Your task to perform on an android device: turn on the 24-hour format for clock Image 0: 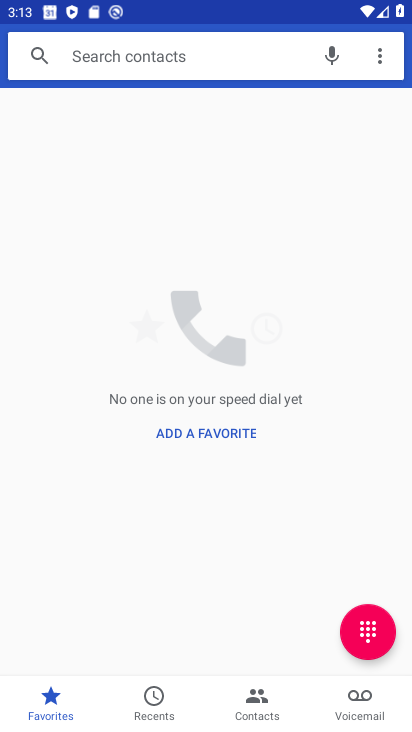
Step 0: press home button
Your task to perform on an android device: turn on the 24-hour format for clock Image 1: 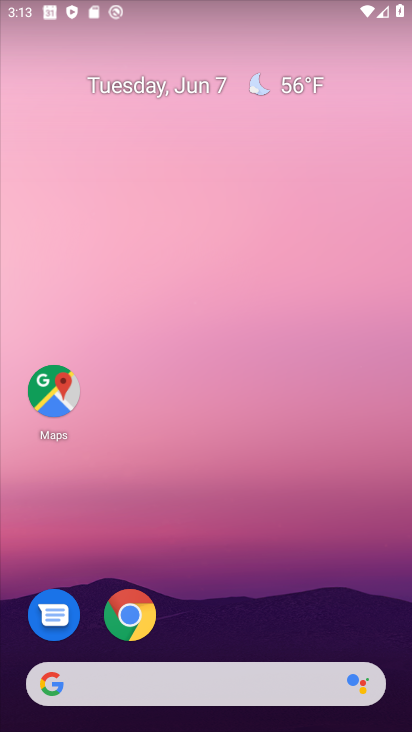
Step 1: drag from (156, 638) to (164, 405)
Your task to perform on an android device: turn on the 24-hour format for clock Image 2: 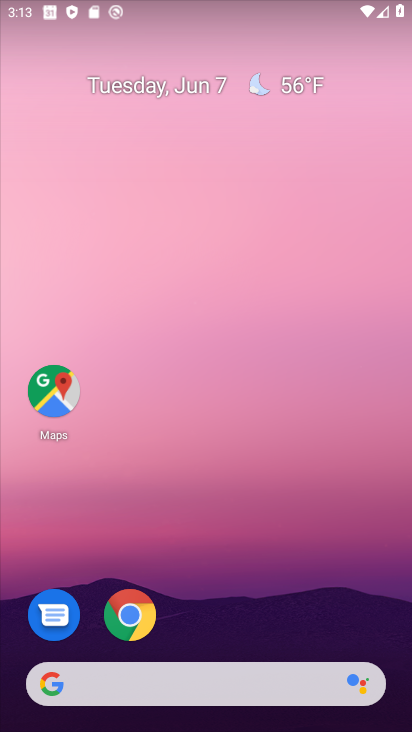
Step 2: drag from (289, 650) to (288, 238)
Your task to perform on an android device: turn on the 24-hour format for clock Image 3: 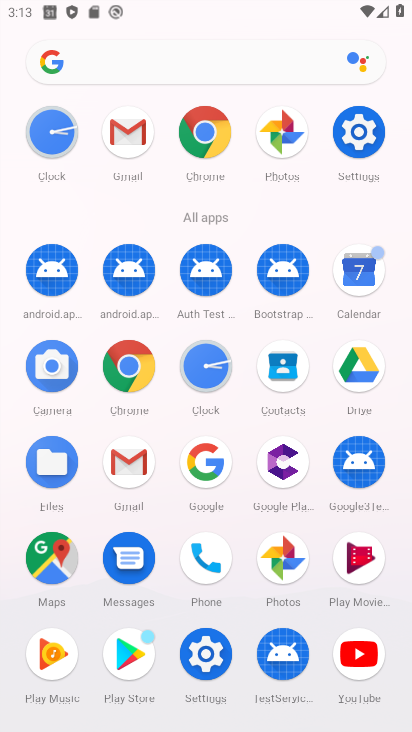
Step 3: click (181, 353)
Your task to perform on an android device: turn on the 24-hour format for clock Image 4: 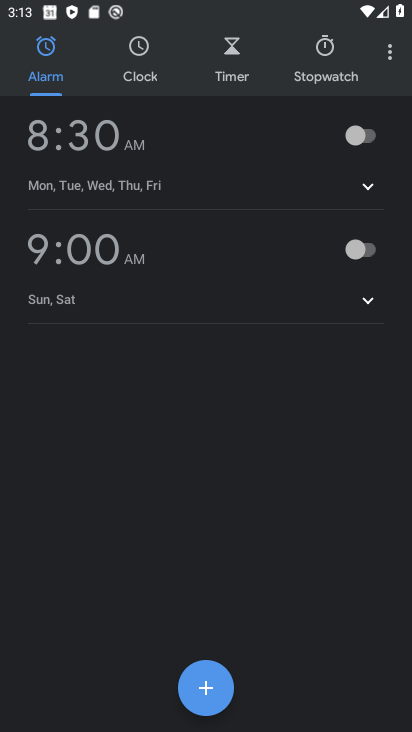
Step 4: click (389, 48)
Your task to perform on an android device: turn on the 24-hour format for clock Image 5: 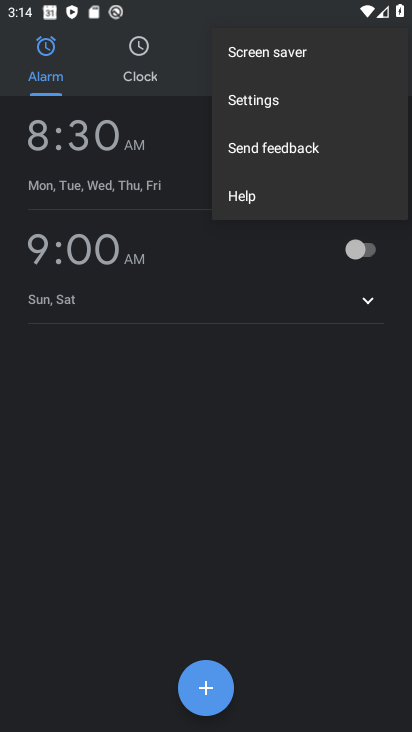
Step 5: click (268, 100)
Your task to perform on an android device: turn on the 24-hour format for clock Image 6: 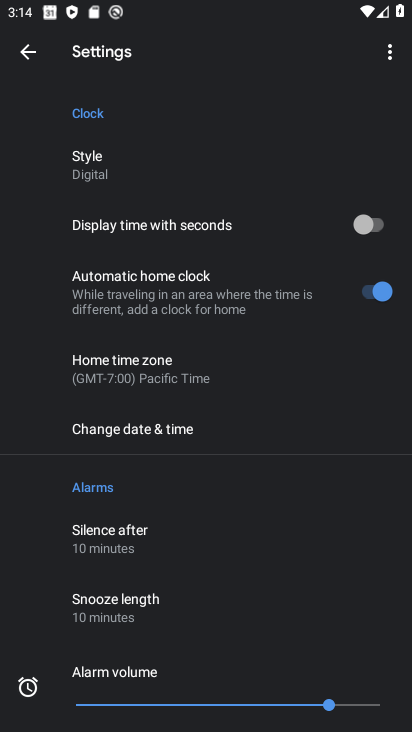
Step 6: click (133, 442)
Your task to perform on an android device: turn on the 24-hour format for clock Image 7: 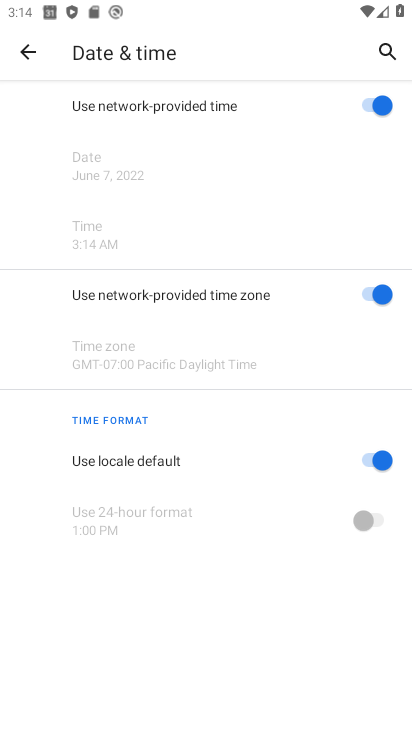
Step 7: click (377, 516)
Your task to perform on an android device: turn on the 24-hour format for clock Image 8: 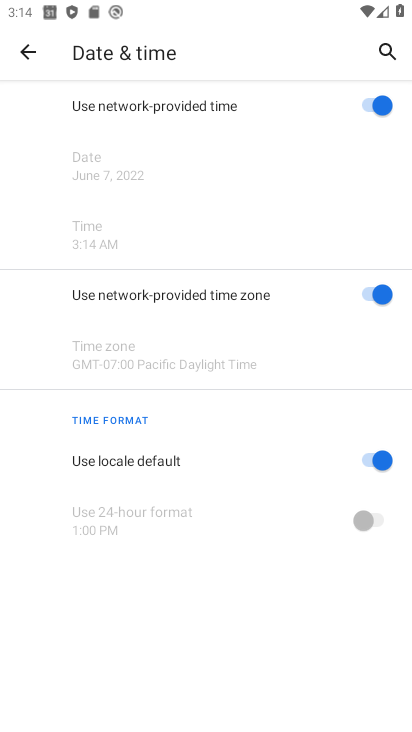
Step 8: click (372, 458)
Your task to perform on an android device: turn on the 24-hour format for clock Image 9: 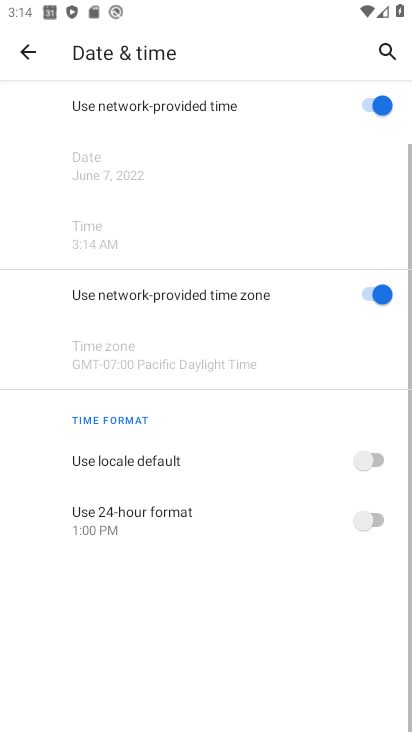
Step 9: click (378, 518)
Your task to perform on an android device: turn on the 24-hour format for clock Image 10: 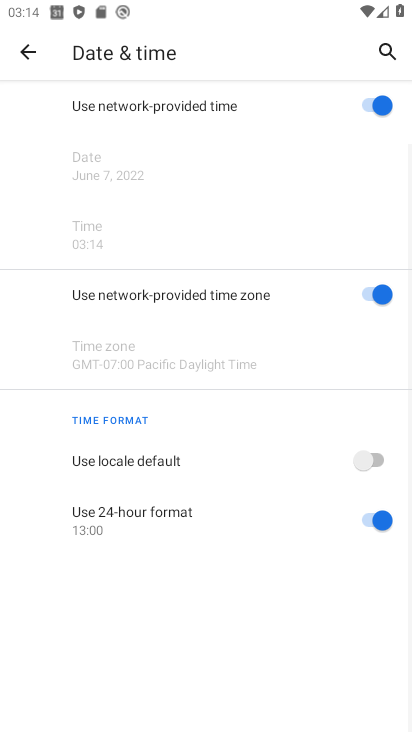
Step 10: task complete